Your task to perform on an android device: allow cookies in the chrome app Image 0: 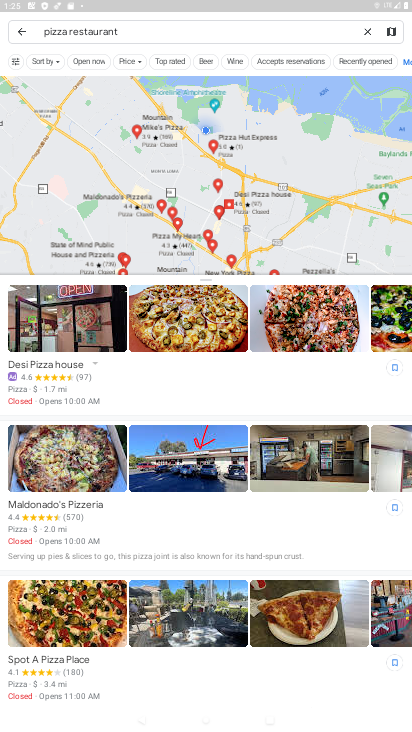
Step 0: press home button
Your task to perform on an android device: allow cookies in the chrome app Image 1: 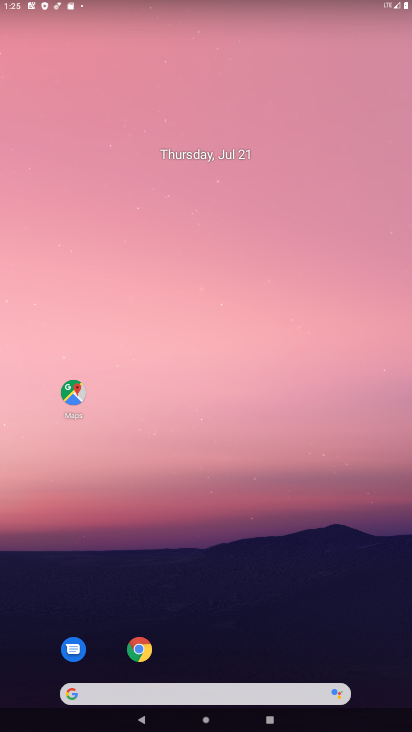
Step 1: drag from (229, 711) to (235, 206)
Your task to perform on an android device: allow cookies in the chrome app Image 2: 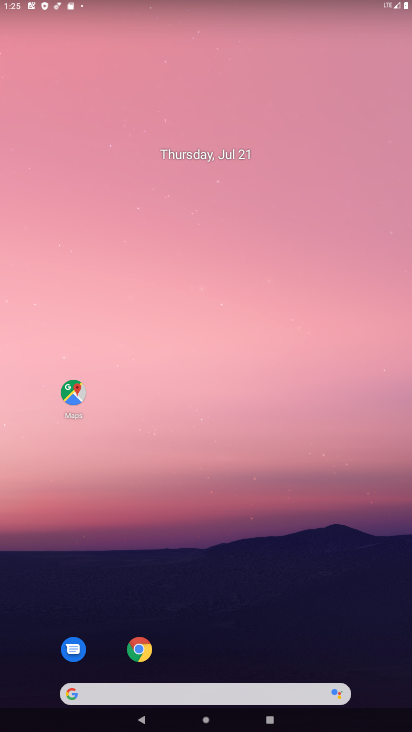
Step 2: click (127, 653)
Your task to perform on an android device: allow cookies in the chrome app Image 3: 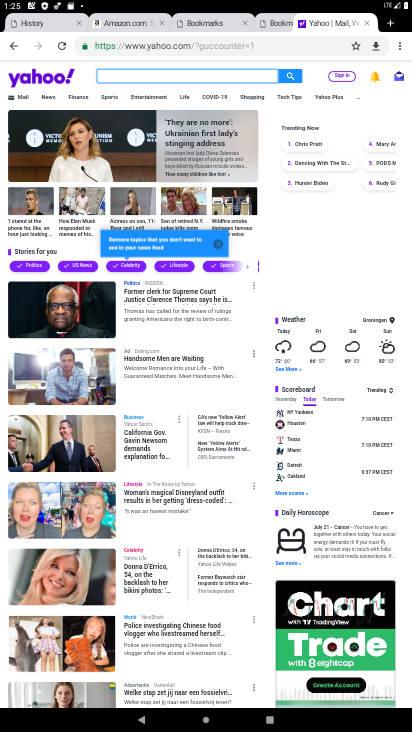
Step 3: click (397, 46)
Your task to perform on an android device: allow cookies in the chrome app Image 4: 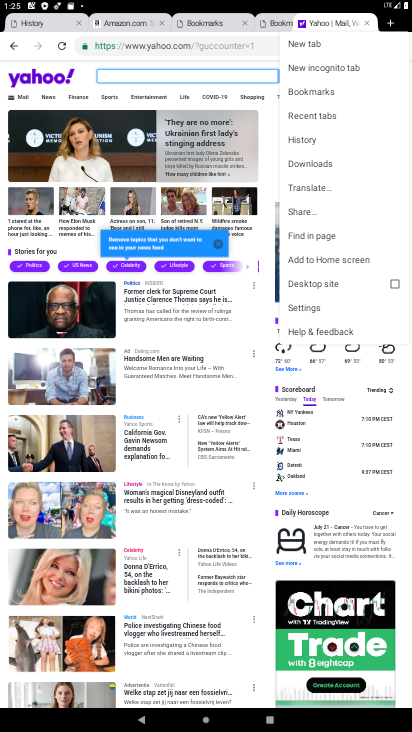
Step 4: click (307, 307)
Your task to perform on an android device: allow cookies in the chrome app Image 5: 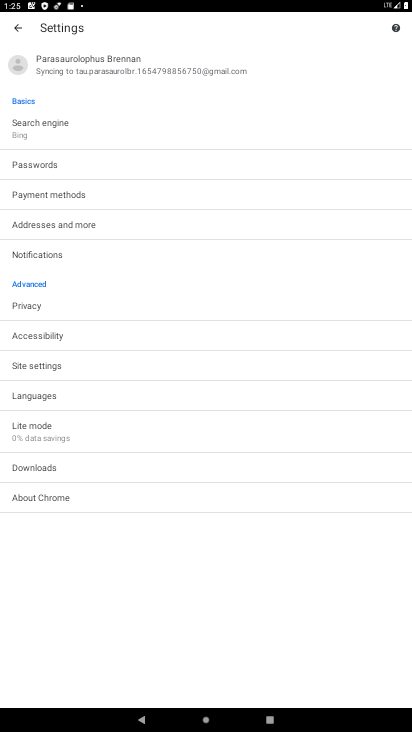
Step 5: click (41, 363)
Your task to perform on an android device: allow cookies in the chrome app Image 6: 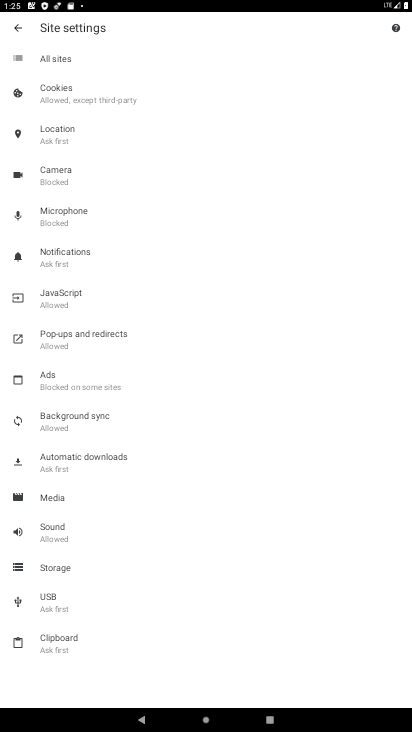
Step 6: click (57, 93)
Your task to perform on an android device: allow cookies in the chrome app Image 7: 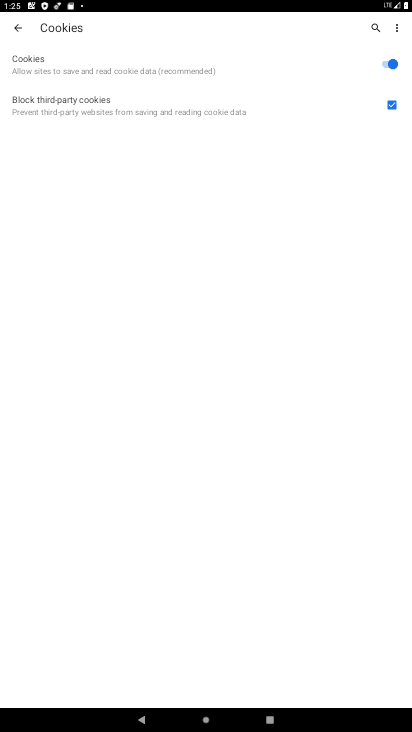
Step 7: task complete